Your task to perform on an android device: change keyboard looks Image 0: 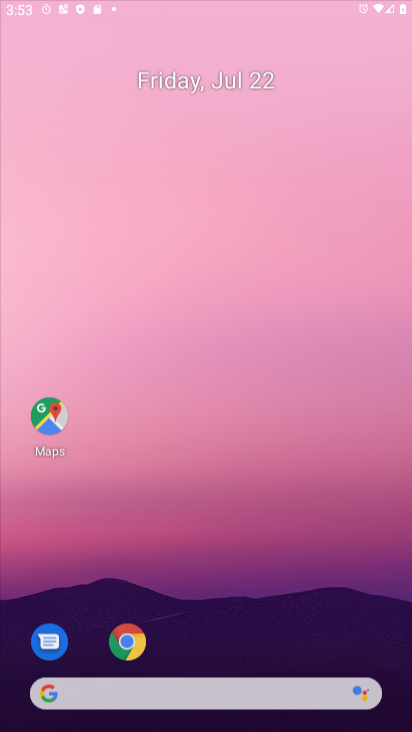
Step 0: press home button
Your task to perform on an android device: change keyboard looks Image 1: 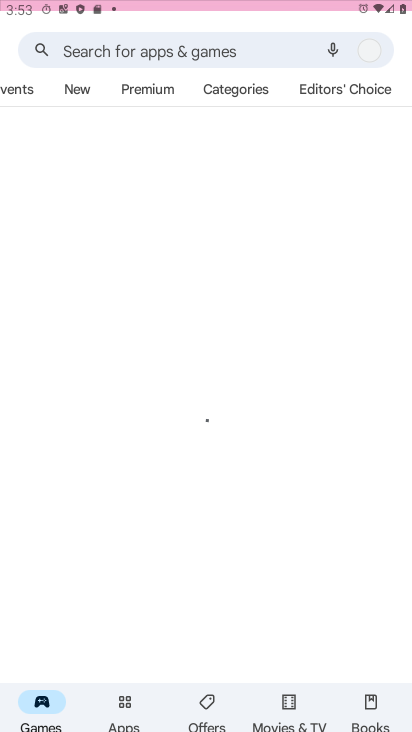
Step 1: click (140, 191)
Your task to perform on an android device: change keyboard looks Image 2: 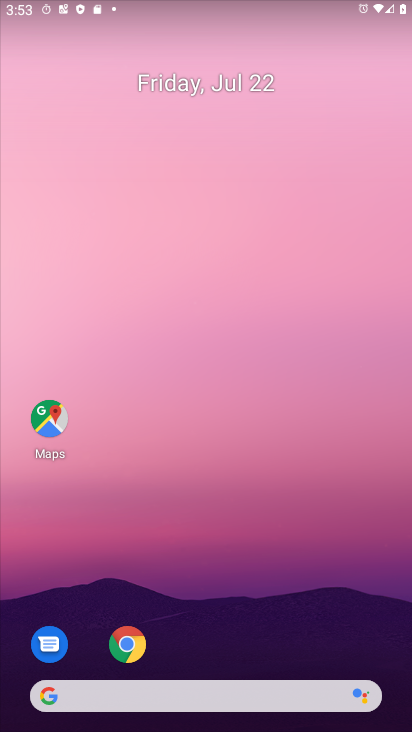
Step 2: drag from (268, 644) to (230, 116)
Your task to perform on an android device: change keyboard looks Image 3: 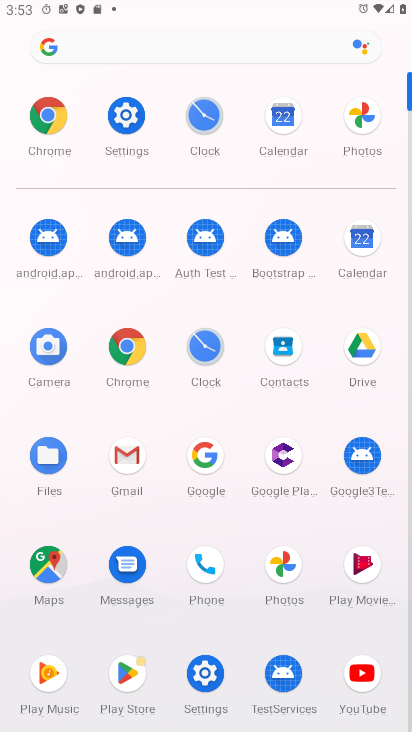
Step 3: click (121, 125)
Your task to perform on an android device: change keyboard looks Image 4: 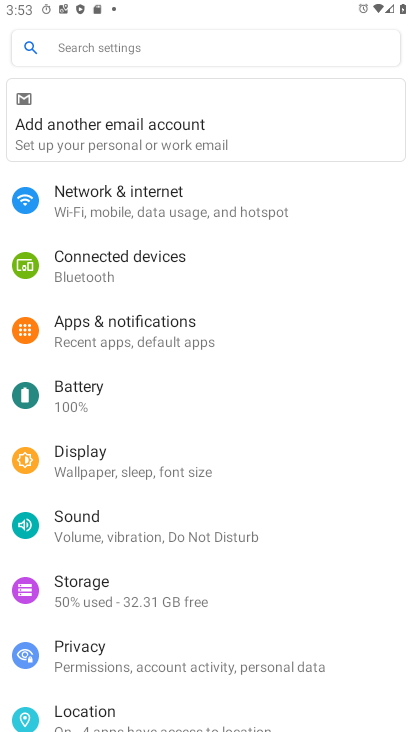
Step 4: drag from (312, 600) to (218, 29)
Your task to perform on an android device: change keyboard looks Image 5: 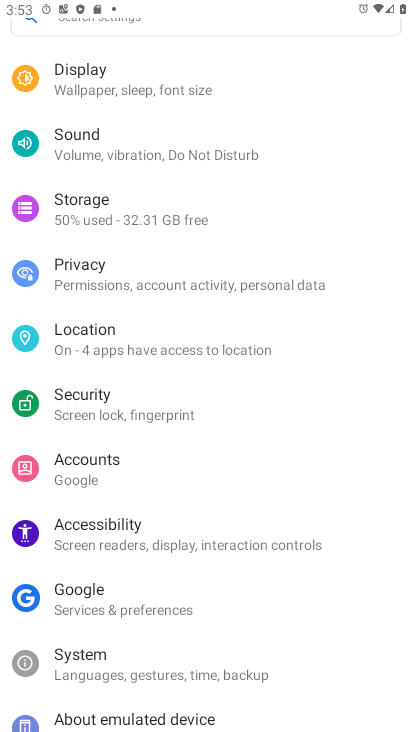
Step 5: click (90, 662)
Your task to perform on an android device: change keyboard looks Image 6: 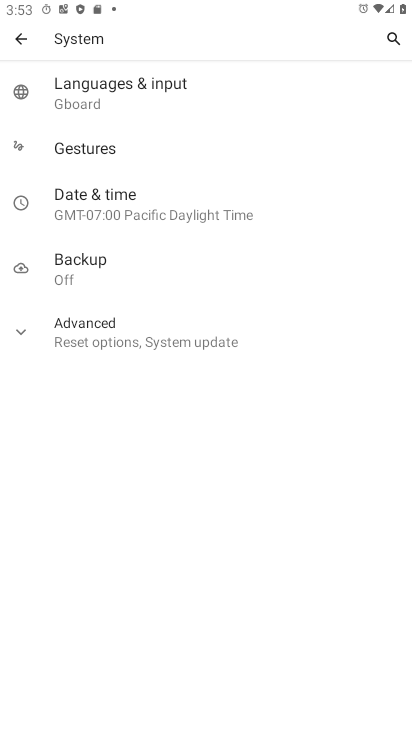
Step 6: click (87, 94)
Your task to perform on an android device: change keyboard looks Image 7: 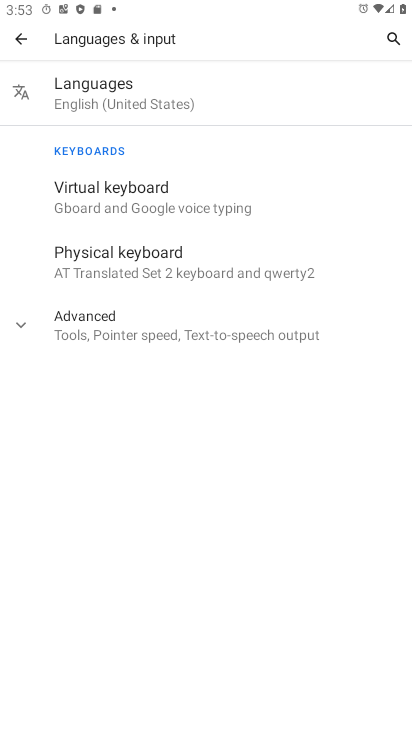
Step 7: click (106, 201)
Your task to perform on an android device: change keyboard looks Image 8: 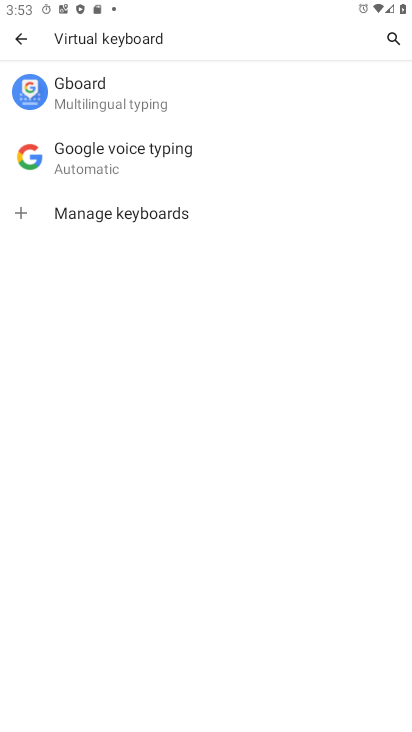
Step 8: click (77, 96)
Your task to perform on an android device: change keyboard looks Image 9: 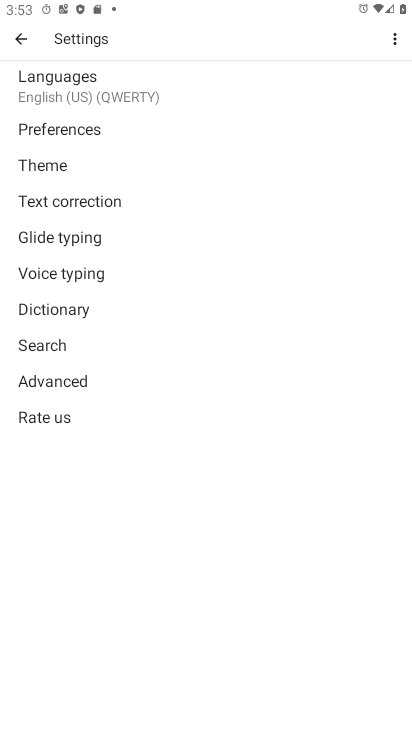
Step 9: click (39, 165)
Your task to perform on an android device: change keyboard looks Image 10: 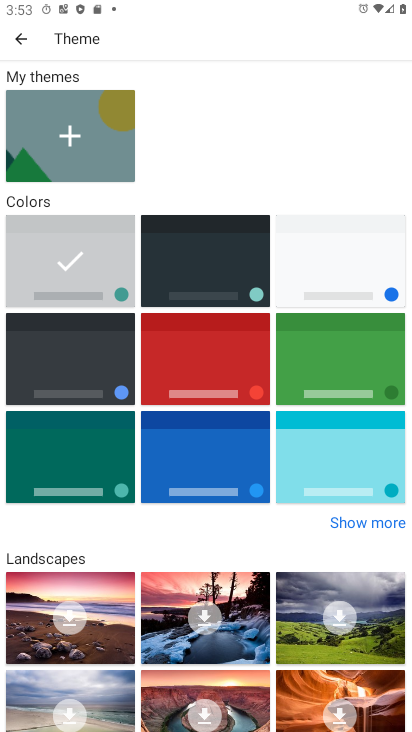
Step 10: click (185, 263)
Your task to perform on an android device: change keyboard looks Image 11: 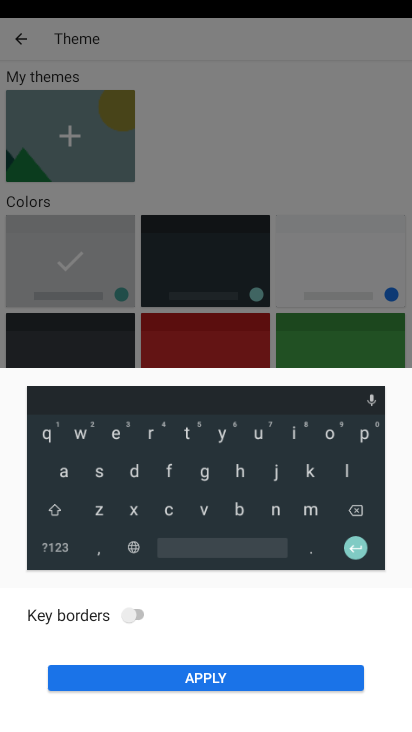
Step 11: click (139, 677)
Your task to perform on an android device: change keyboard looks Image 12: 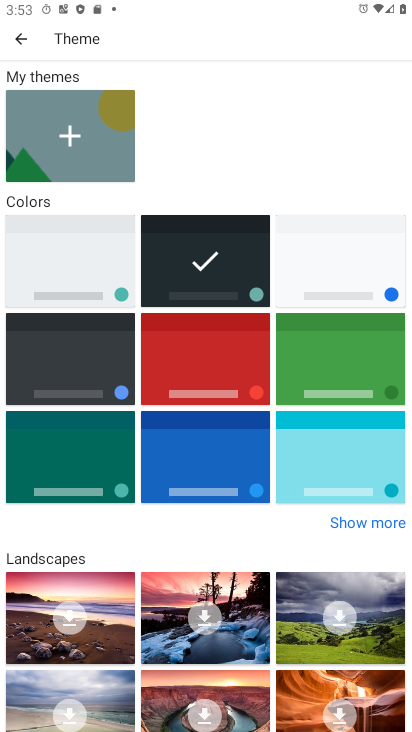
Step 12: task complete